Your task to perform on an android device: turn on data saver in the chrome app Image 0: 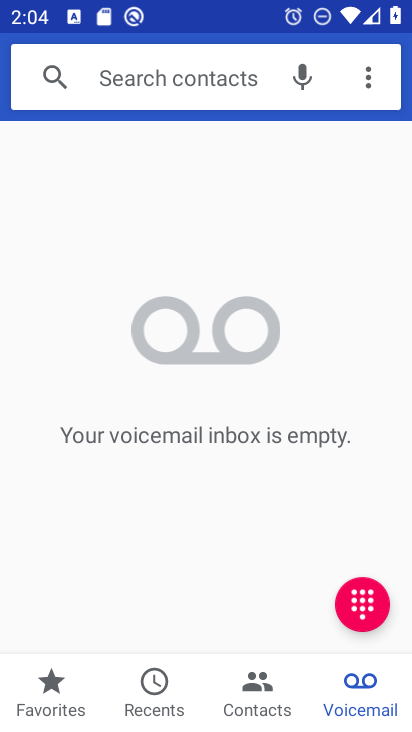
Step 0: drag from (269, 643) to (256, 281)
Your task to perform on an android device: turn on data saver in the chrome app Image 1: 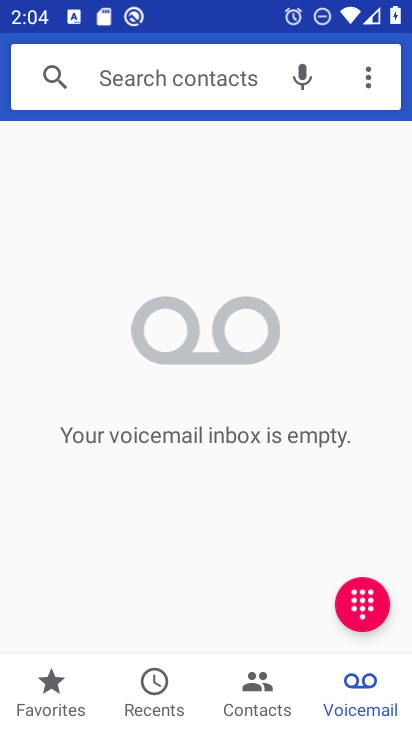
Step 1: press home button
Your task to perform on an android device: turn on data saver in the chrome app Image 2: 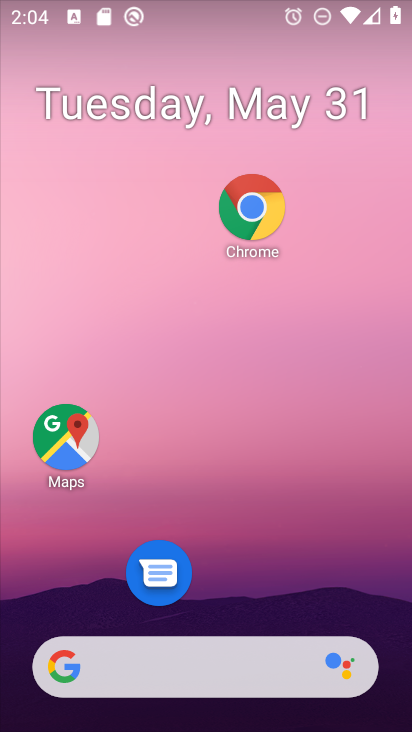
Step 2: click (268, 222)
Your task to perform on an android device: turn on data saver in the chrome app Image 3: 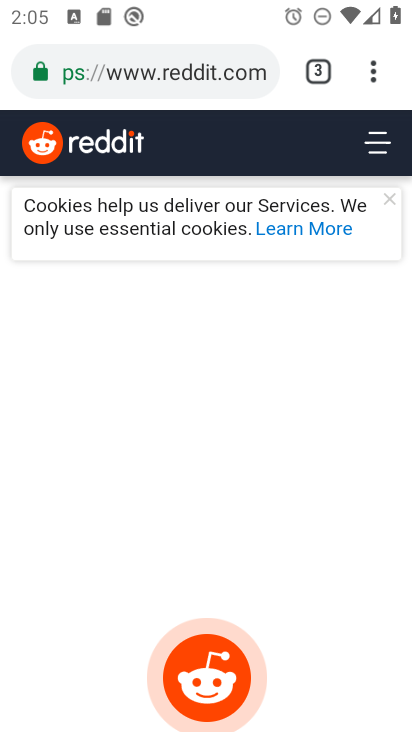
Step 3: click (377, 76)
Your task to perform on an android device: turn on data saver in the chrome app Image 4: 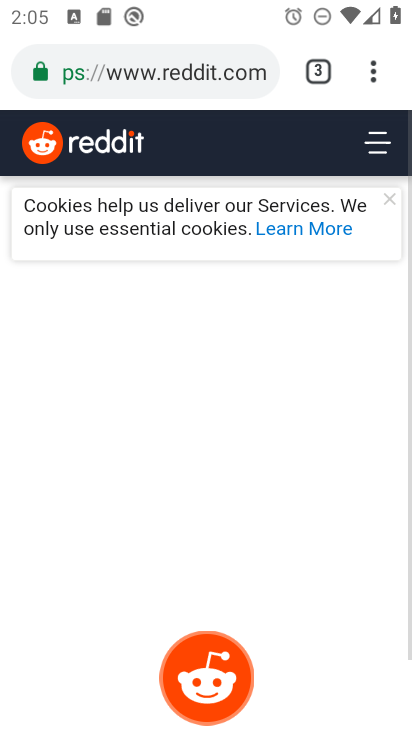
Step 4: click (373, 81)
Your task to perform on an android device: turn on data saver in the chrome app Image 5: 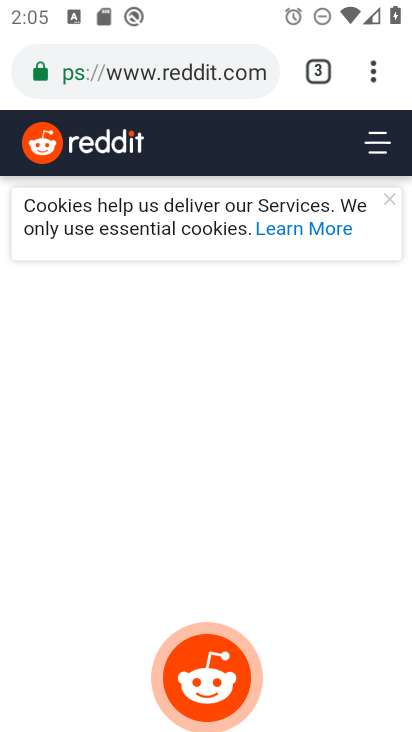
Step 5: click (373, 81)
Your task to perform on an android device: turn on data saver in the chrome app Image 6: 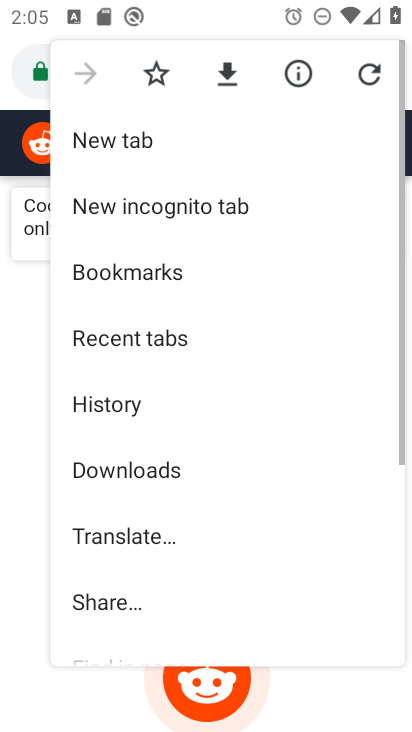
Step 6: drag from (248, 482) to (267, 36)
Your task to perform on an android device: turn on data saver in the chrome app Image 7: 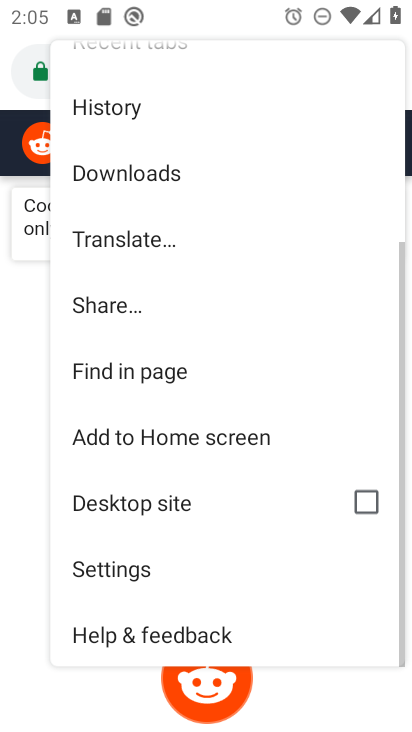
Step 7: click (168, 567)
Your task to perform on an android device: turn on data saver in the chrome app Image 8: 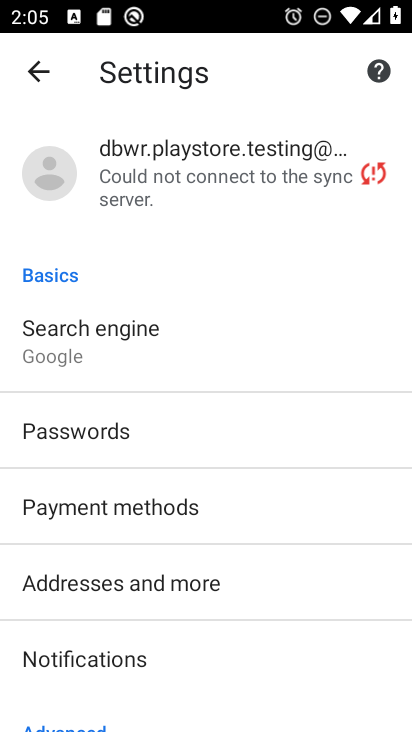
Step 8: drag from (170, 630) to (204, 191)
Your task to perform on an android device: turn on data saver in the chrome app Image 9: 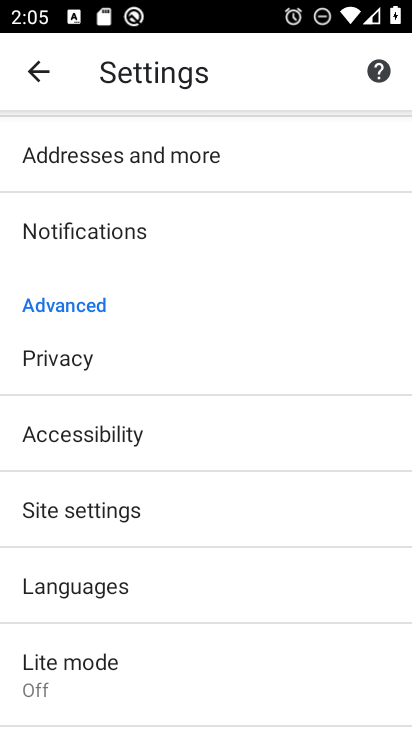
Step 9: drag from (166, 567) to (190, 234)
Your task to perform on an android device: turn on data saver in the chrome app Image 10: 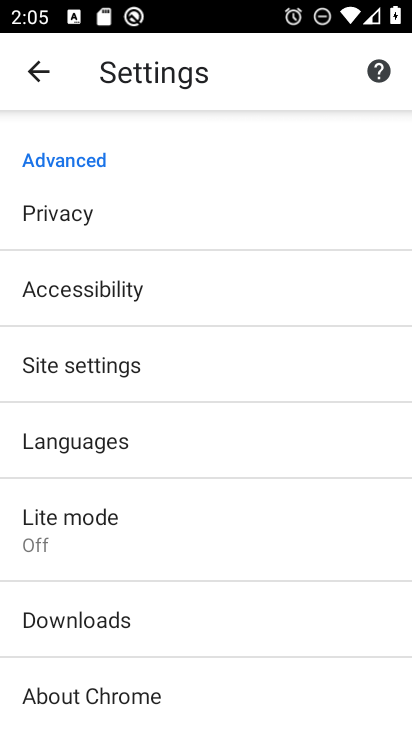
Step 10: click (136, 528)
Your task to perform on an android device: turn on data saver in the chrome app Image 11: 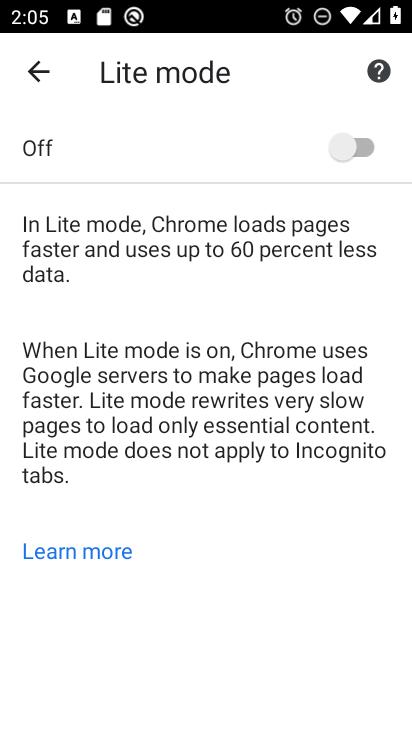
Step 11: click (360, 160)
Your task to perform on an android device: turn on data saver in the chrome app Image 12: 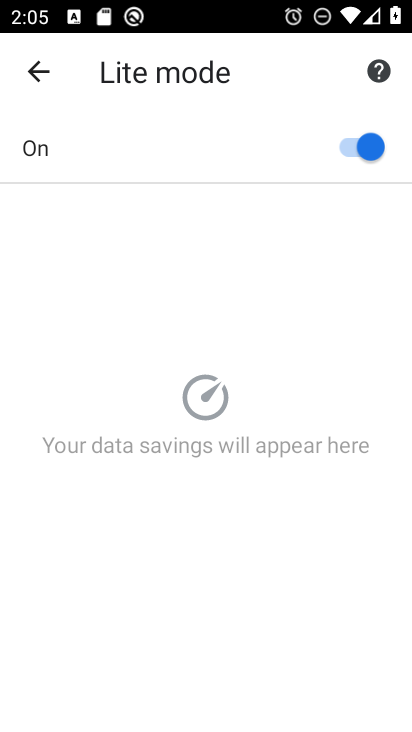
Step 12: task complete